Your task to perform on an android device: uninstall "DuckDuckGo Privacy Browser" Image 0: 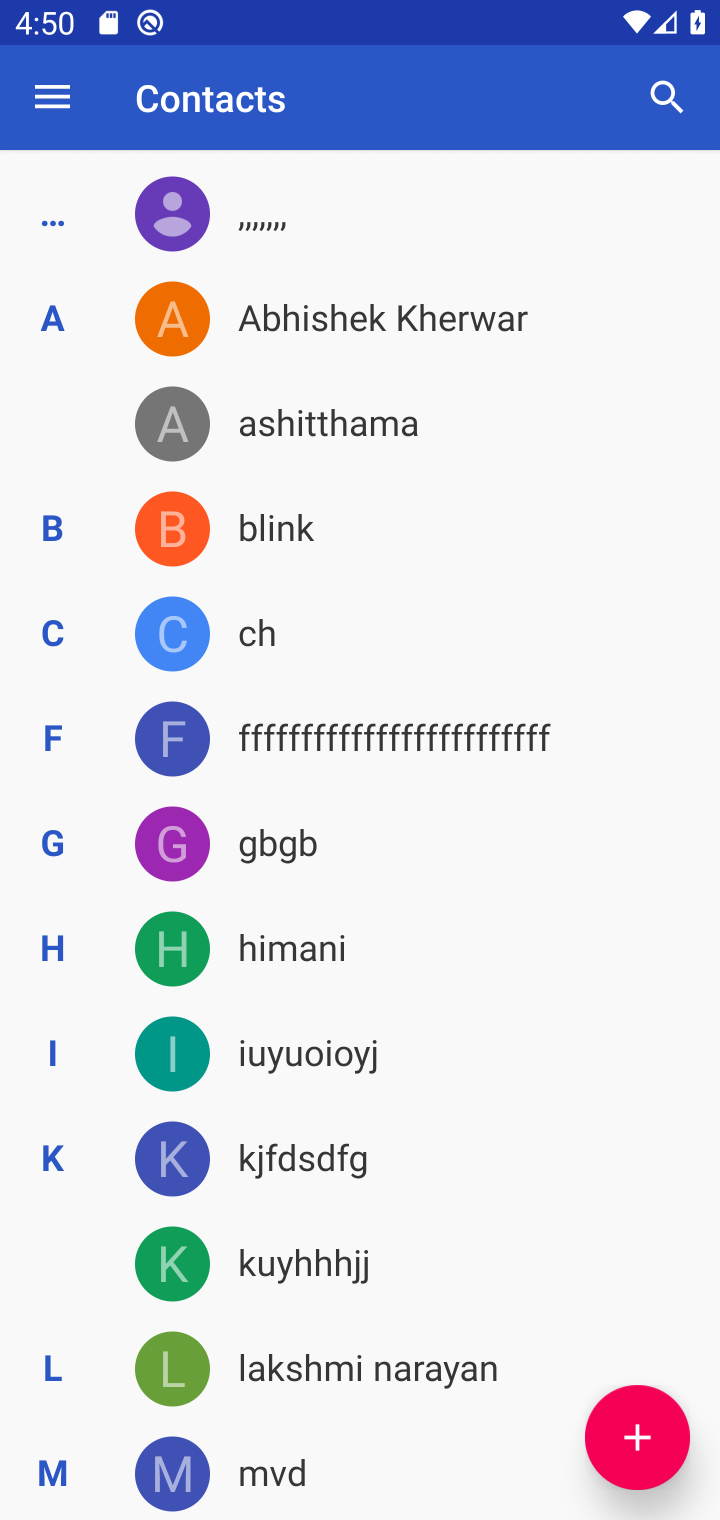
Step 0: press home button
Your task to perform on an android device: uninstall "DuckDuckGo Privacy Browser" Image 1: 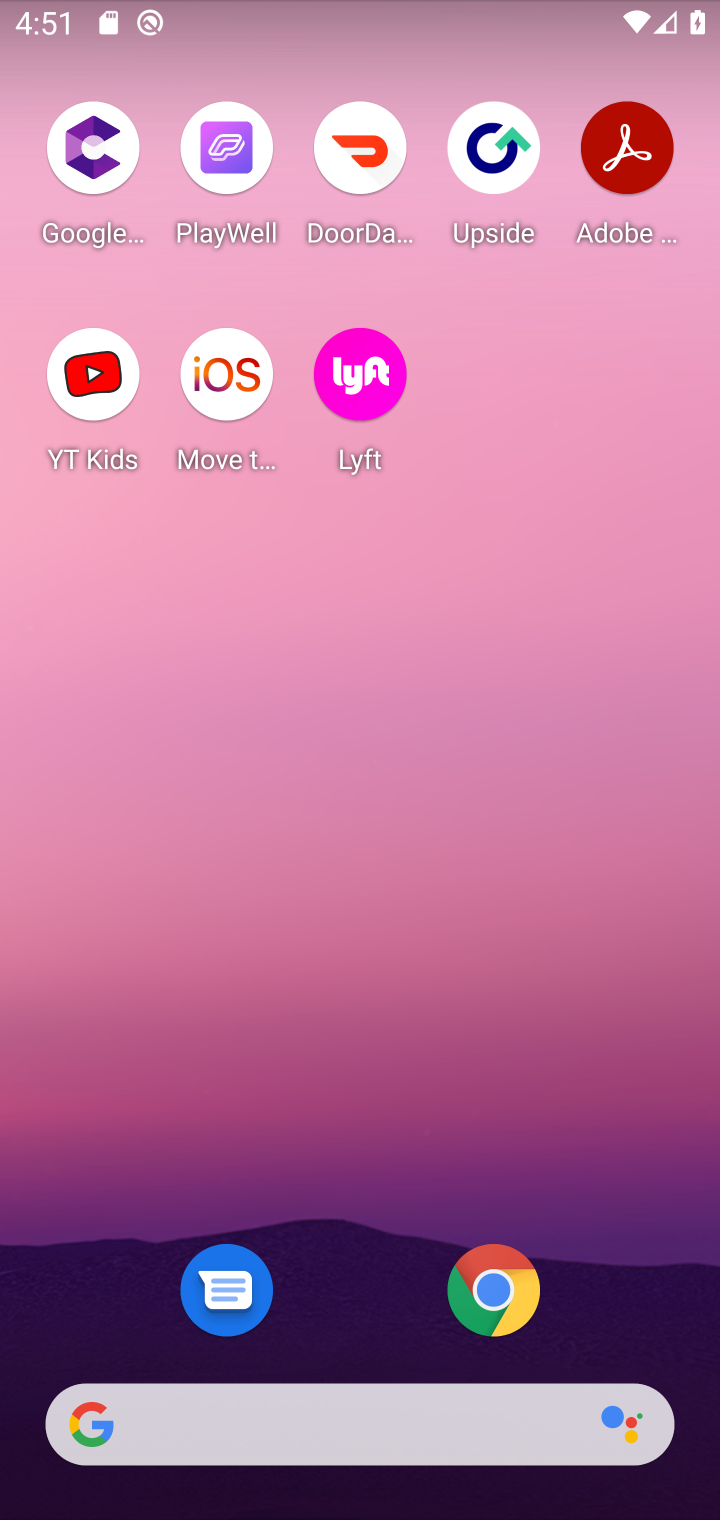
Step 1: drag from (207, 1421) to (252, 20)
Your task to perform on an android device: uninstall "DuckDuckGo Privacy Browser" Image 2: 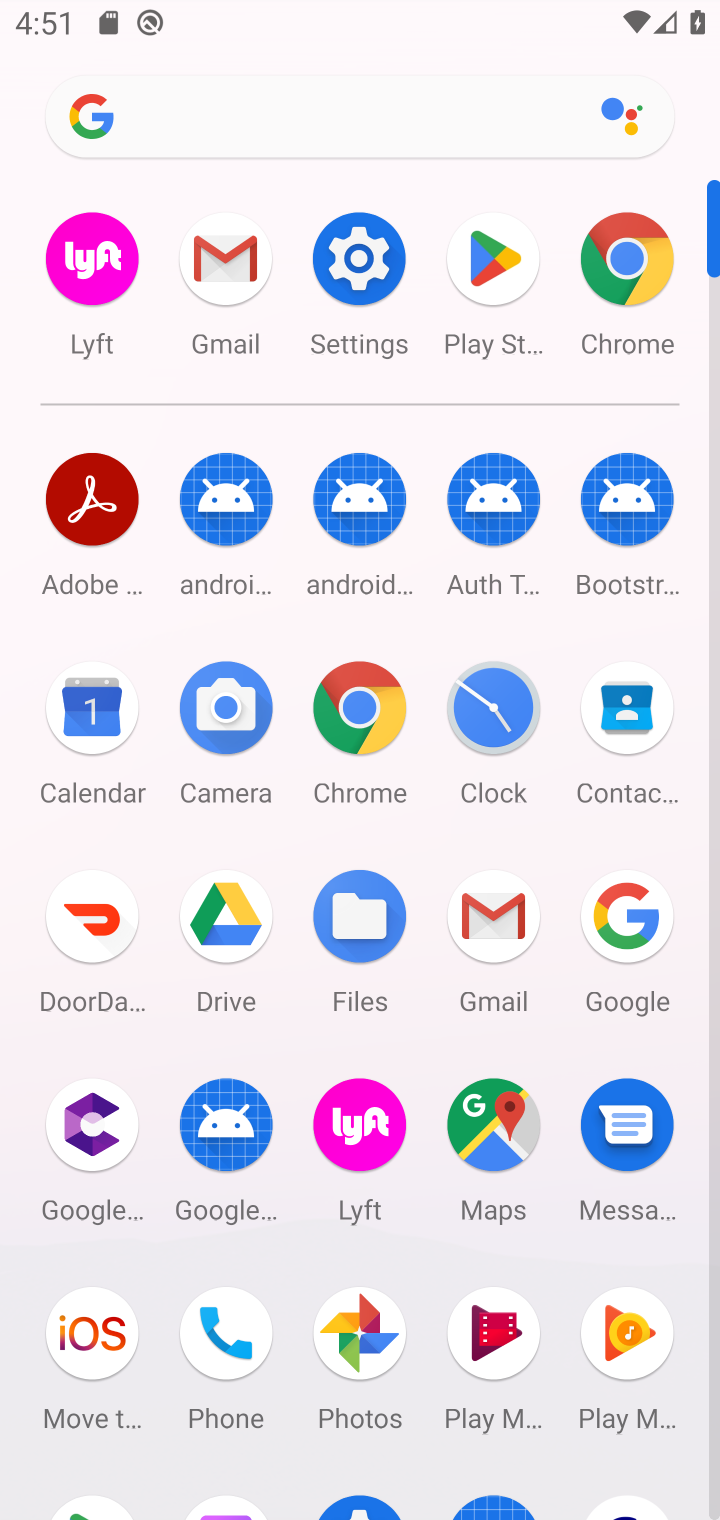
Step 2: click (495, 293)
Your task to perform on an android device: uninstall "DuckDuckGo Privacy Browser" Image 3: 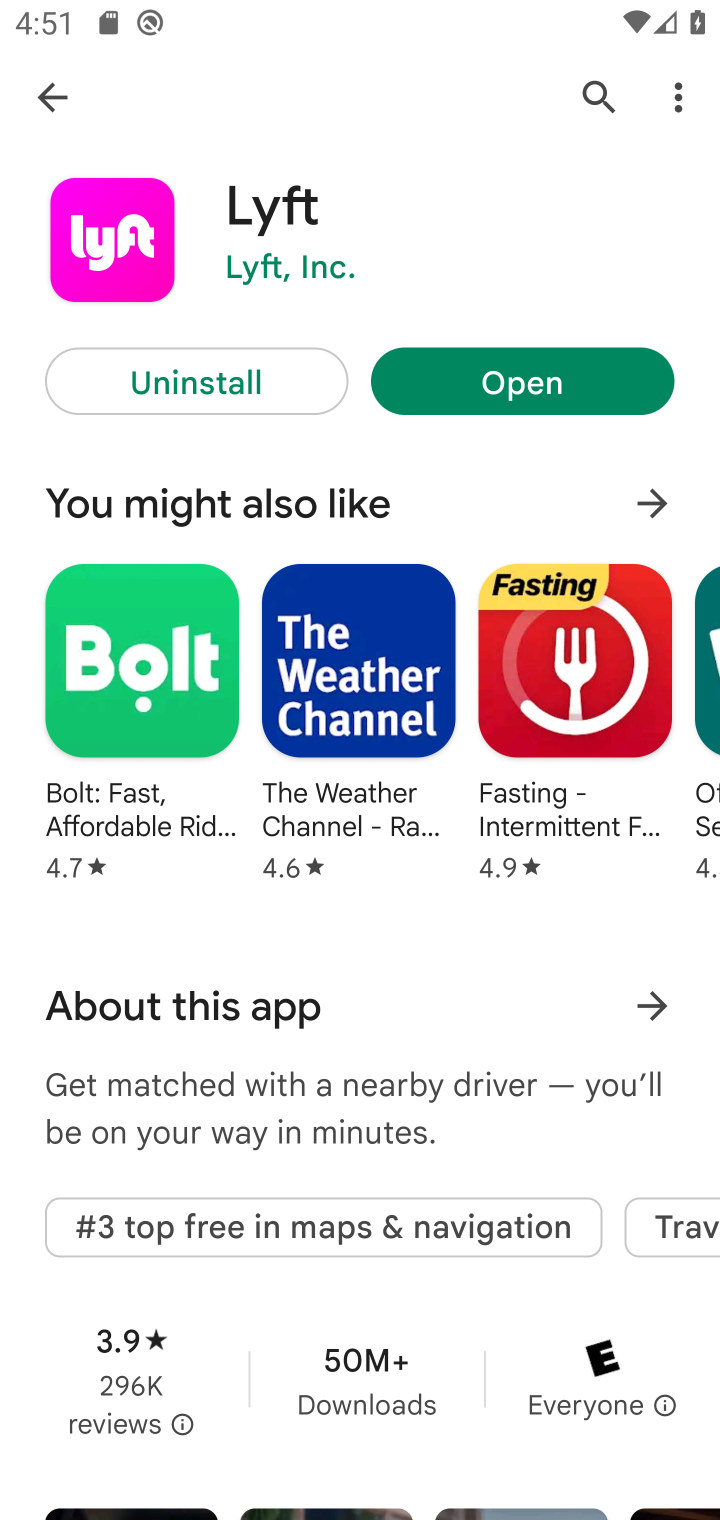
Step 3: click (599, 77)
Your task to perform on an android device: uninstall "DuckDuckGo Privacy Browser" Image 4: 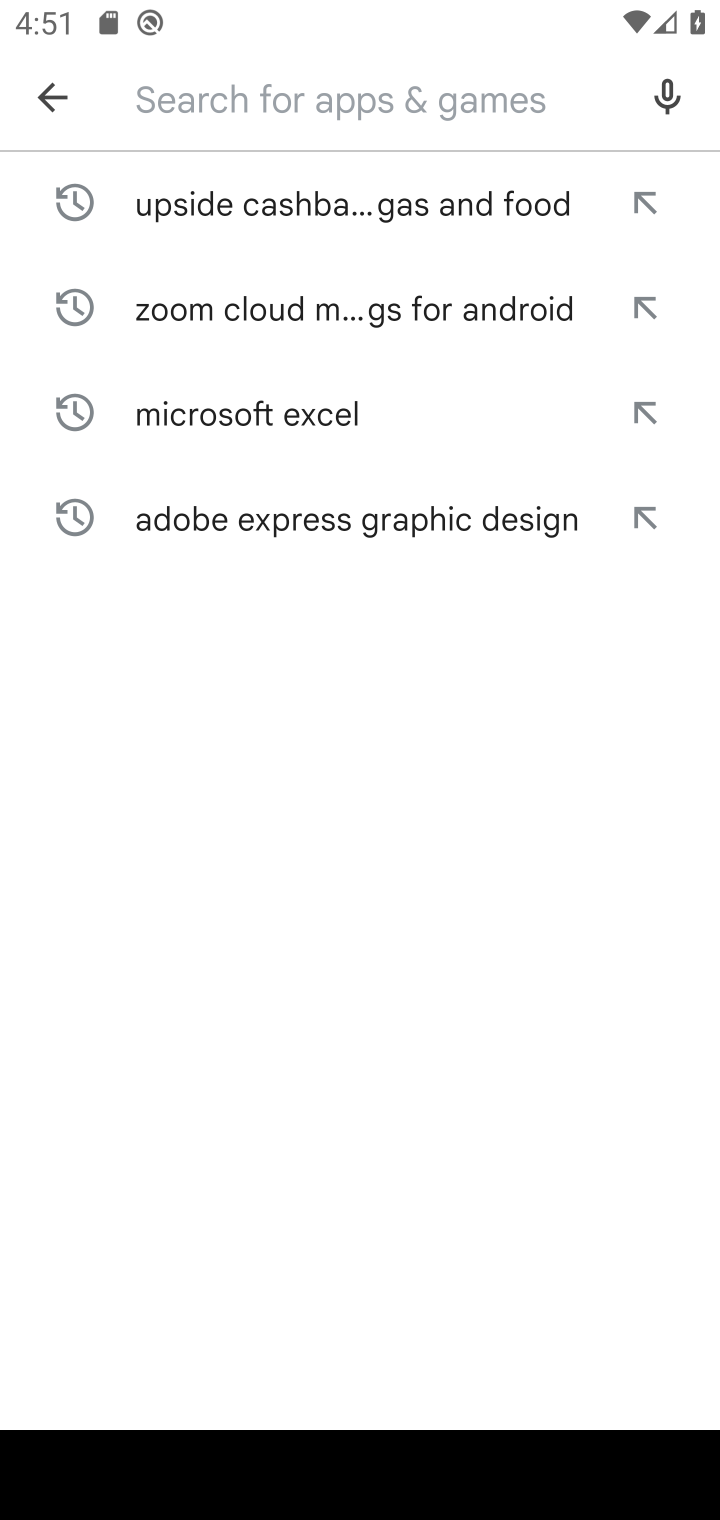
Step 4: type "duckduckgo privacy browser"
Your task to perform on an android device: uninstall "DuckDuckGo Privacy Browser" Image 5: 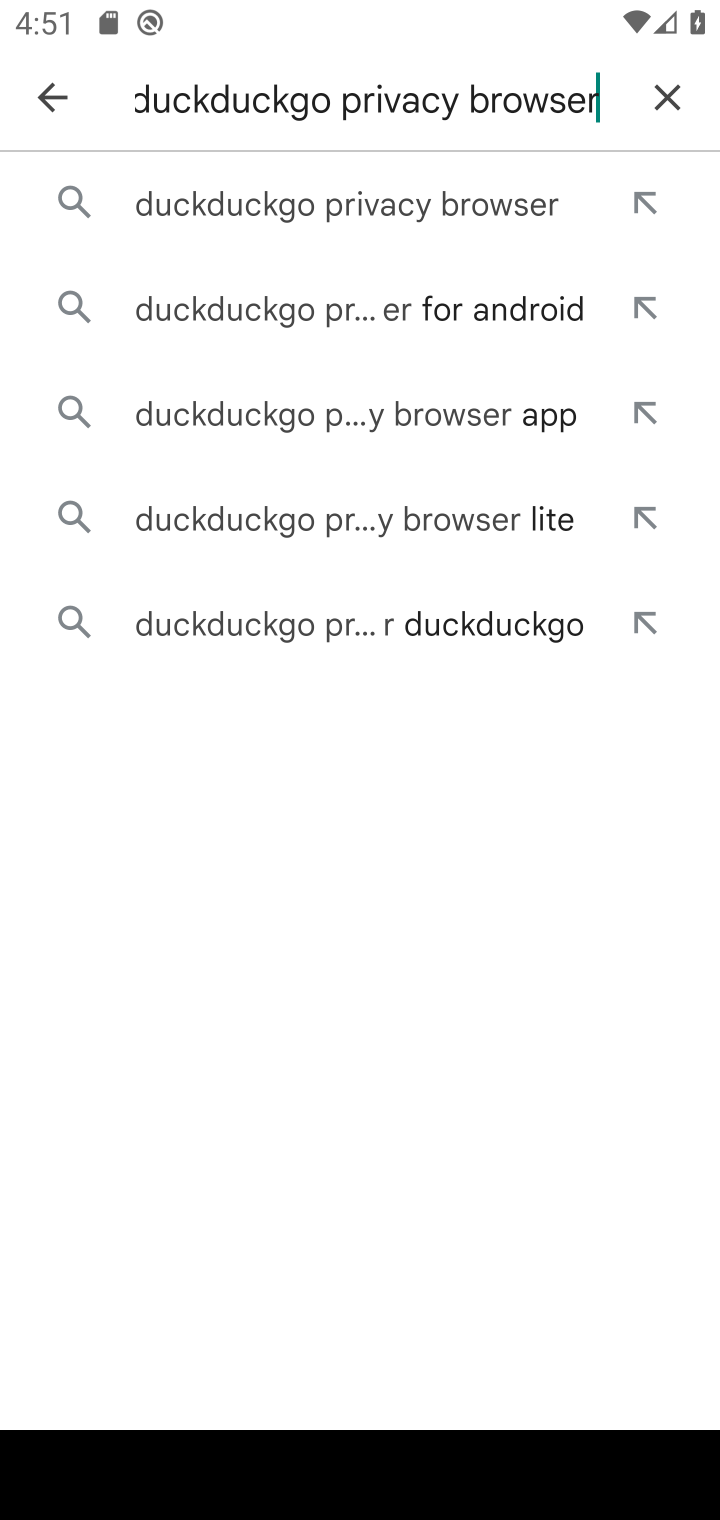
Step 5: click (260, 212)
Your task to perform on an android device: uninstall "DuckDuckGo Privacy Browser" Image 6: 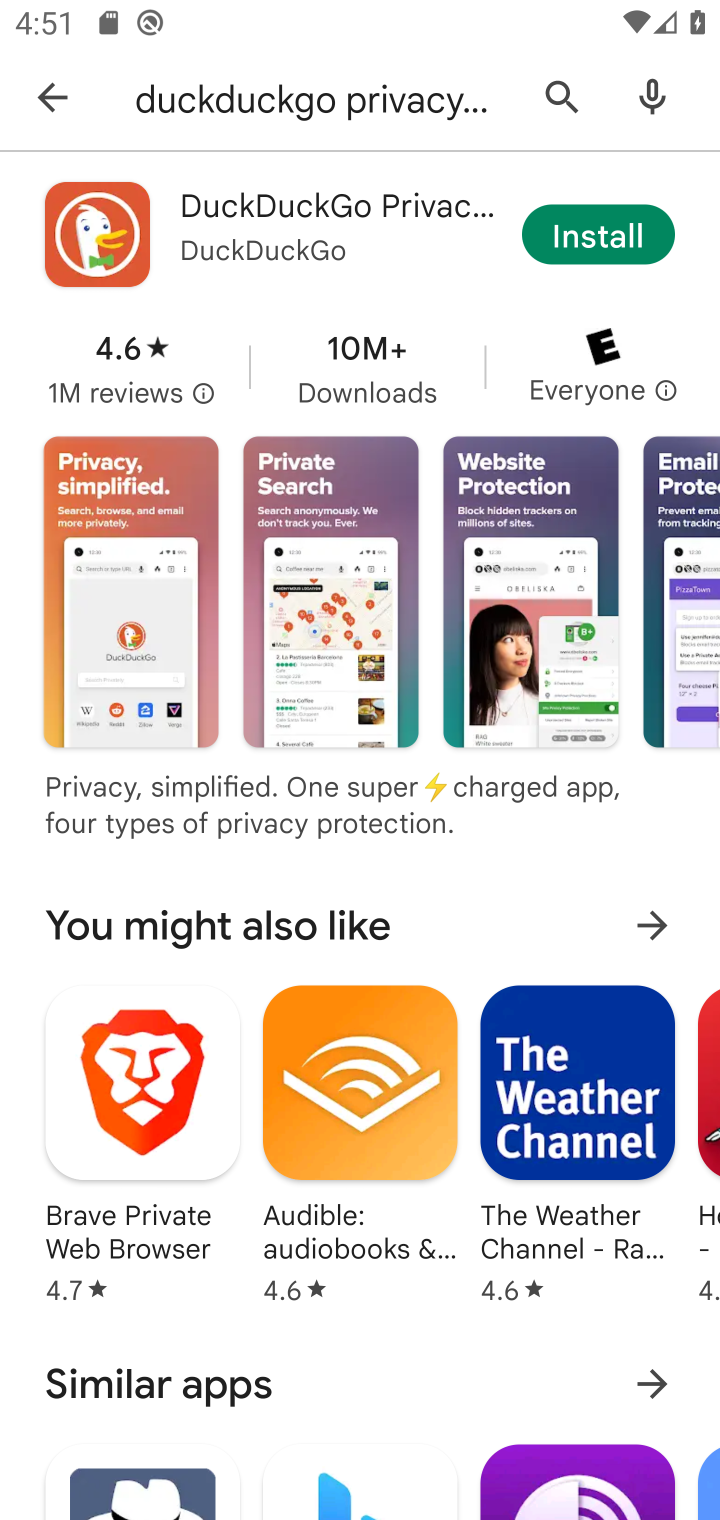
Step 6: task complete